Your task to perform on an android device: turn off picture-in-picture Image 0: 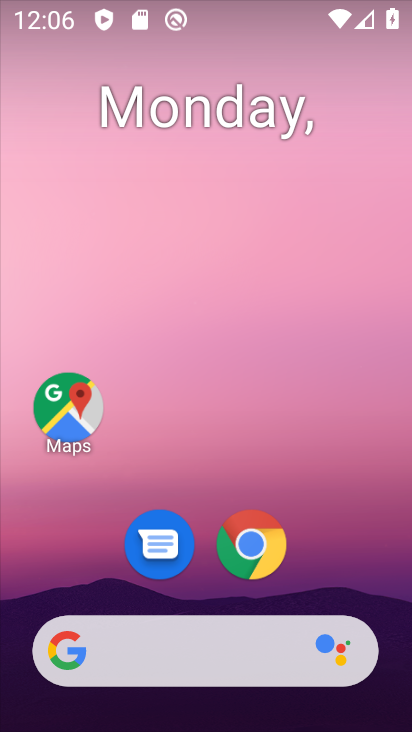
Step 0: drag from (295, 613) to (287, 50)
Your task to perform on an android device: turn off picture-in-picture Image 1: 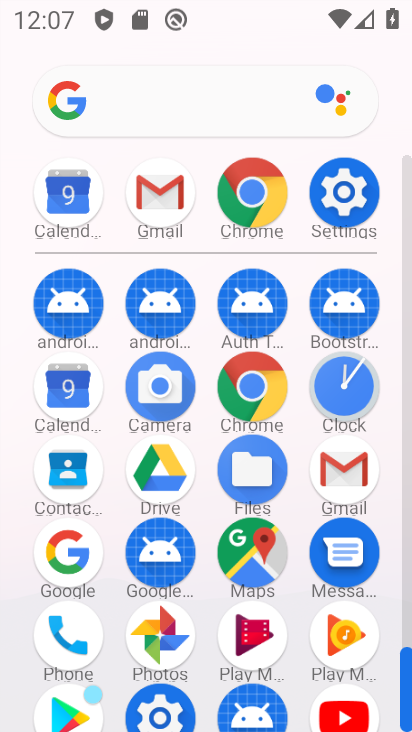
Step 1: click (340, 211)
Your task to perform on an android device: turn off picture-in-picture Image 2: 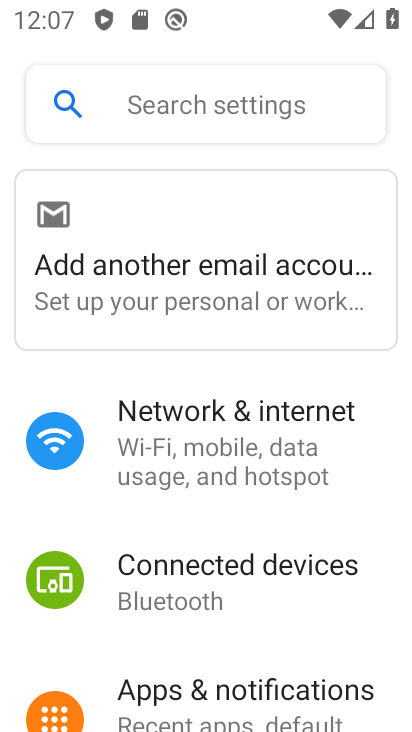
Step 2: drag from (209, 710) to (225, 260)
Your task to perform on an android device: turn off picture-in-picture Image 3: 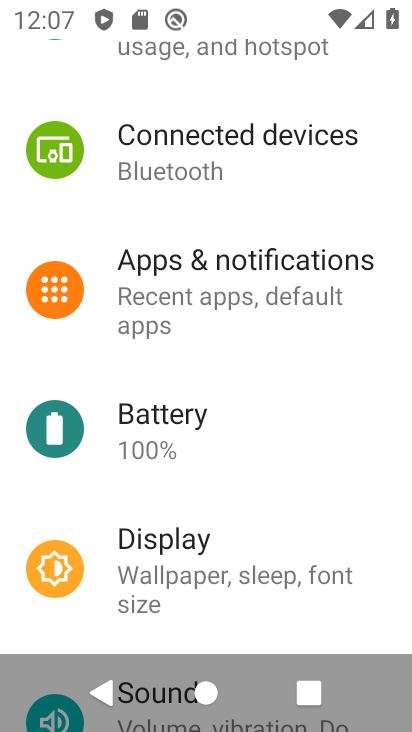
Step 3: click (271, 292)
Your task to perform on an android device: turn off picture-in-picture Image 4: 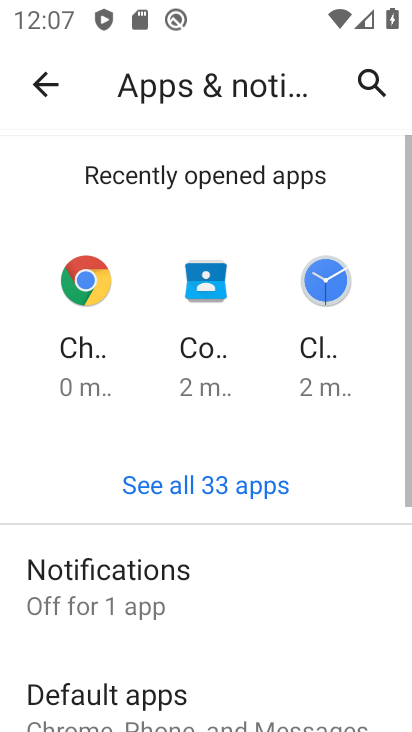
Step 4: drag from (264, 707) to (260, 52)
Your task to perform on an android device: turn off picture-in-picture Image 5: 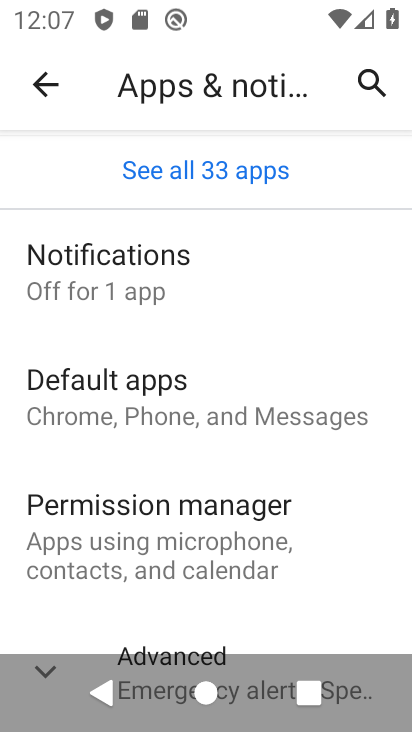
Step 5: click (212, 644)
Your task to perform on an android device: turn off picture-in-picture Image 6: 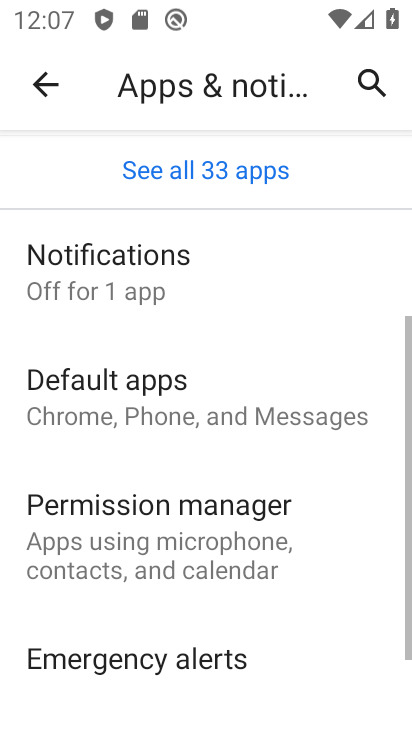
Step 6: drag from (239, 693) to (254, 86)
Your task to perform on an android device: turn off picture-in-picture Image 7: 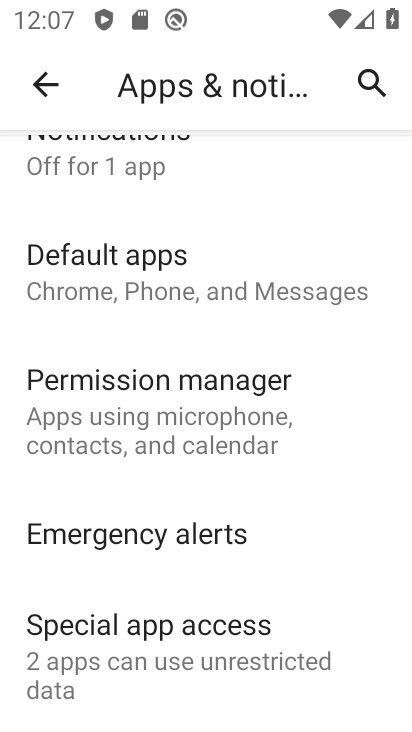
Step 7: click (255, 669)
Your task to perform on an android device: turn off picture-in-picture Image 8: 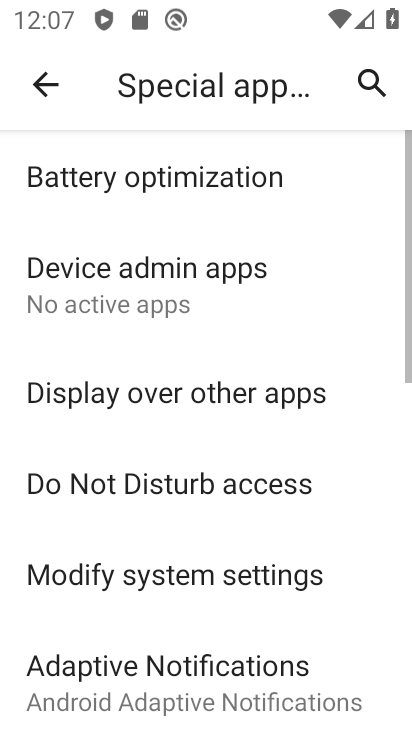
Step 8: drag from (254, 607) to (305, 75)
Your task to perform on an android device: turn off picture-in-picture Image 9: 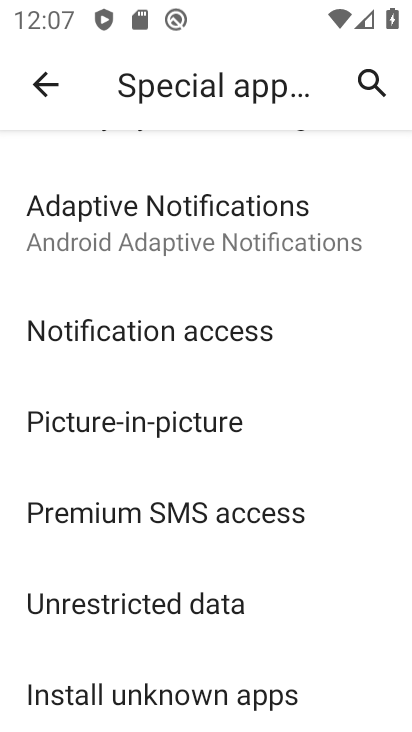
Step 9: click (215, 415)
Your task to perform on an android device: turn off picture-in-picture Image 10: 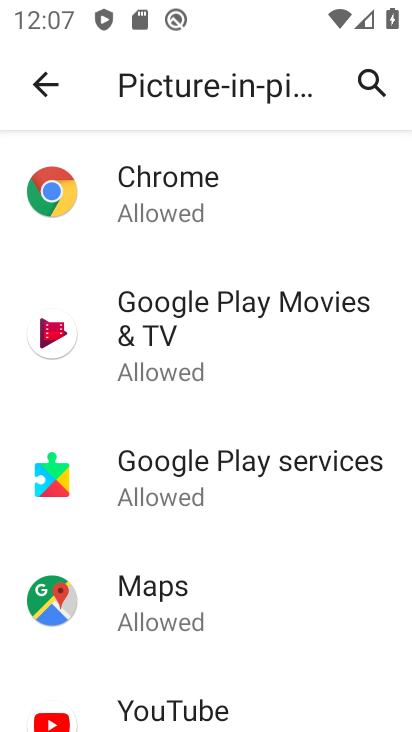
Step 10: click (177, 218)
Your task to perform on an android device: turn off picture-in-picture Image 11: 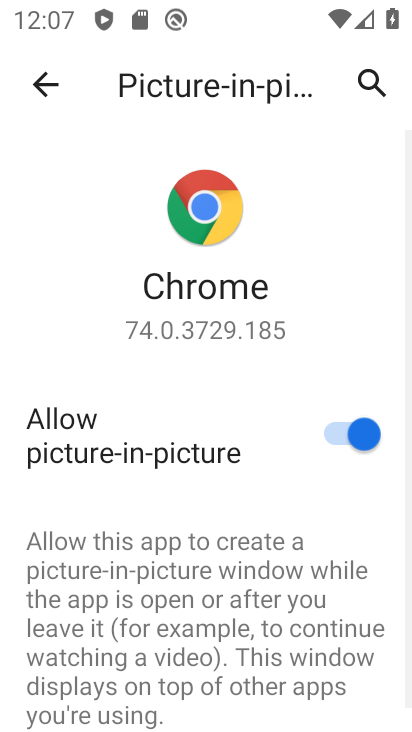
Step 11: click (336, 432)
Your task to perform on an android device: turn off picture-in-picture Image 12: 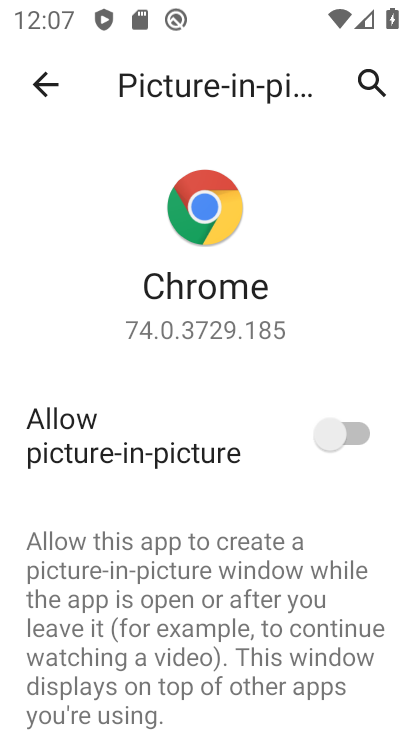
Step 12: press back button
Your task to perform on an android device: turn off picture-in-picture Image 13: 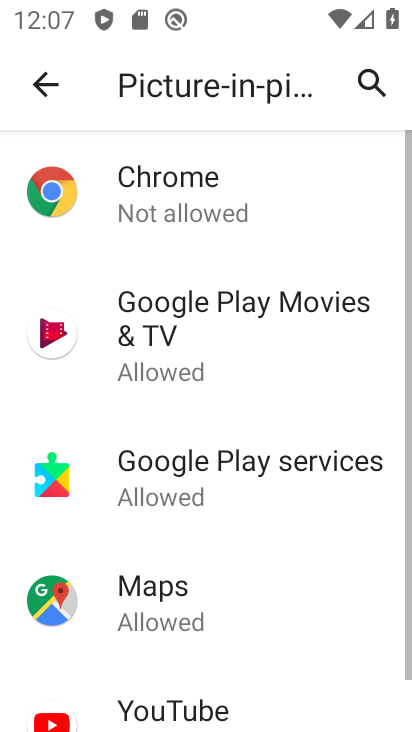
Step 13: click (174, 357)
Your task to perform on an android device: turn off picture-in-picture Image 14: 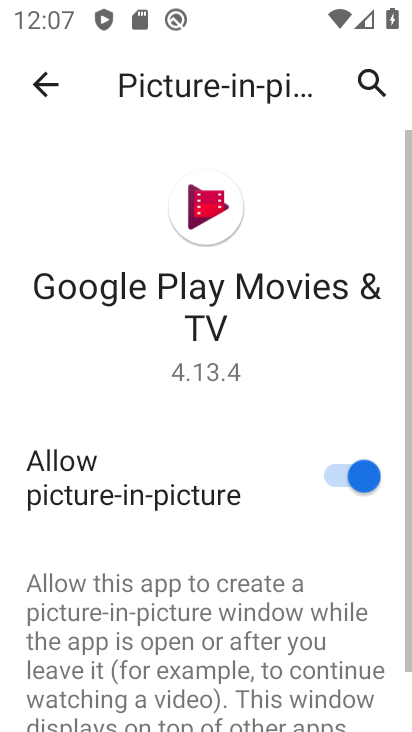
Step 14: click (345, 468)
Your task to perform on an android device: turn off picture-in-picture Image 15: 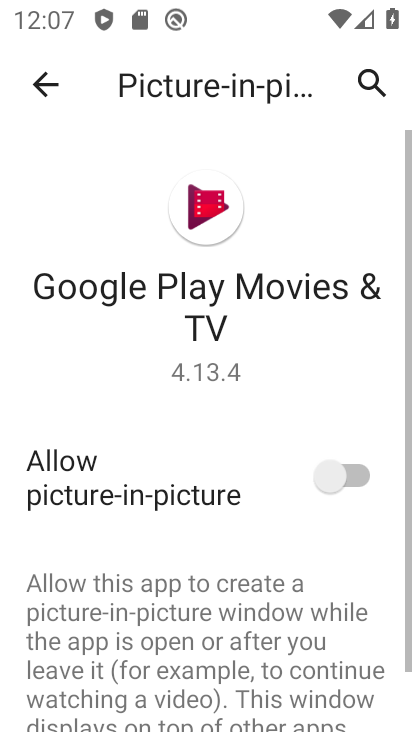
Step 15: press back button
Your task to perform on an android device: turn off picture-in-picture Image 16: 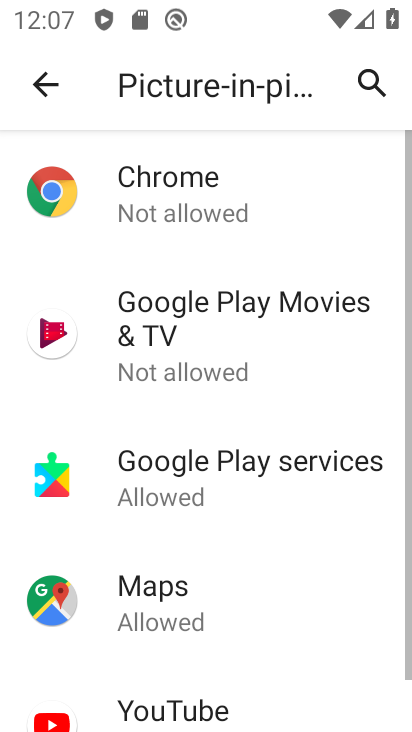
Step 16: click (221, 491)
Your task to perform on an android device: turn off picture-in-picture Image 17: 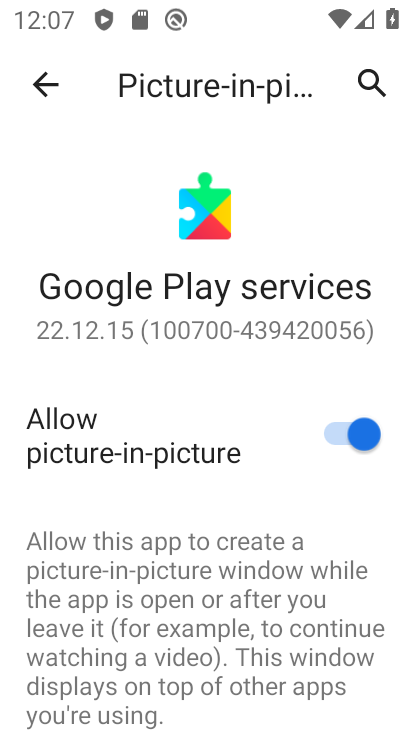
Step 17: click (332, 431)
Your task to perform on an android device: turn off picture-in-picture Image 18: 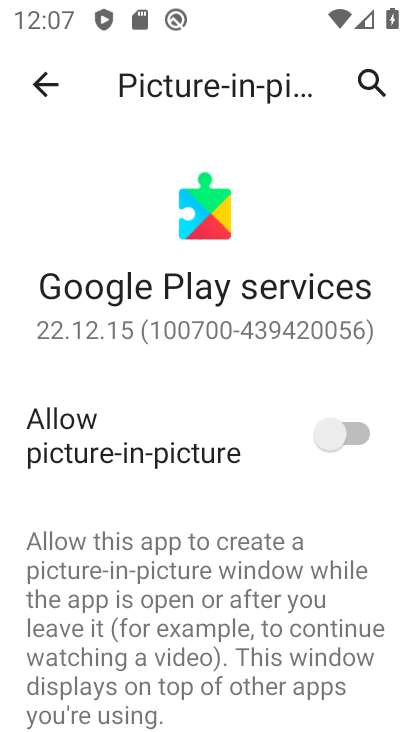
Step 18: press back button
Your task to perform on an android device: turn off picture-in-picture Image 19: 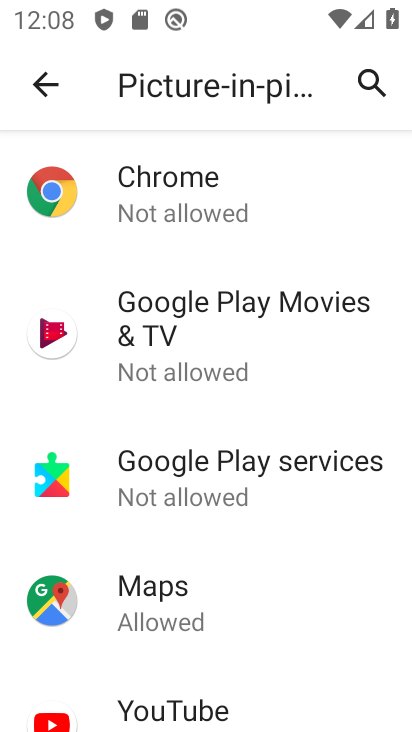
Step 19: click (216, 597)
Your task to perform on an android device: turn off picture-in-picture Image 20: 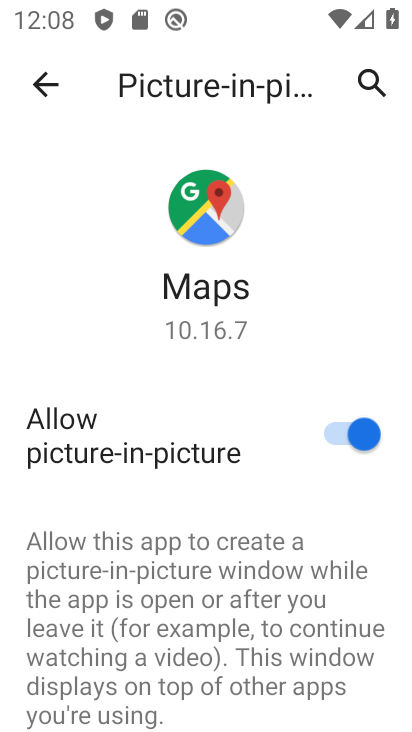
Step 20: click (339, 433)
Your task to perform on an android device: turn off picture-in-picture Image 21: 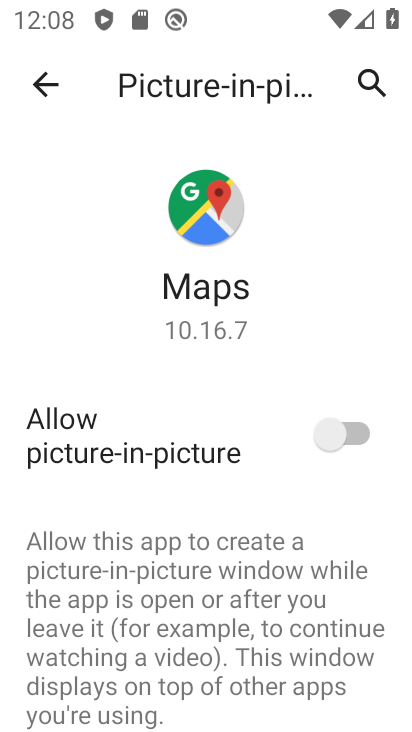
Step 21: press back button
Your task to perform on an android device: turn off picture-in-picture Image 22: 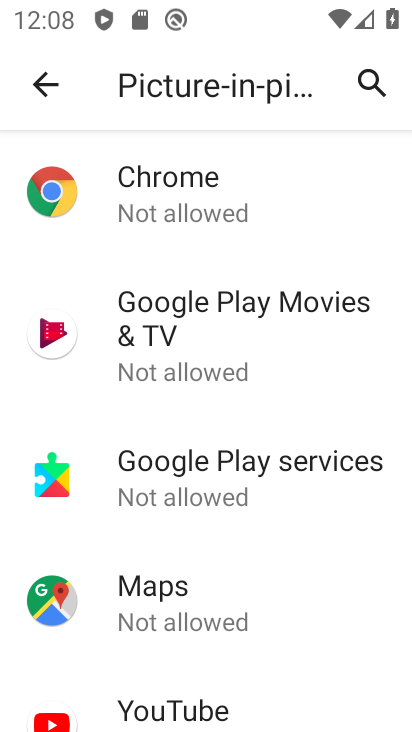
Step 22: click (256, 731)
Your task to perform on an android device: turn off picture-in-picture Image 23: 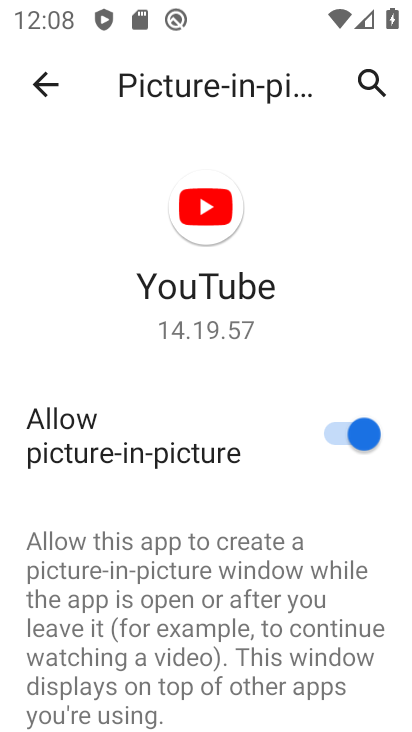
Step 23: click (344, 435)
Your task to perform on an android device: turn off picture-in-picture Image 24: 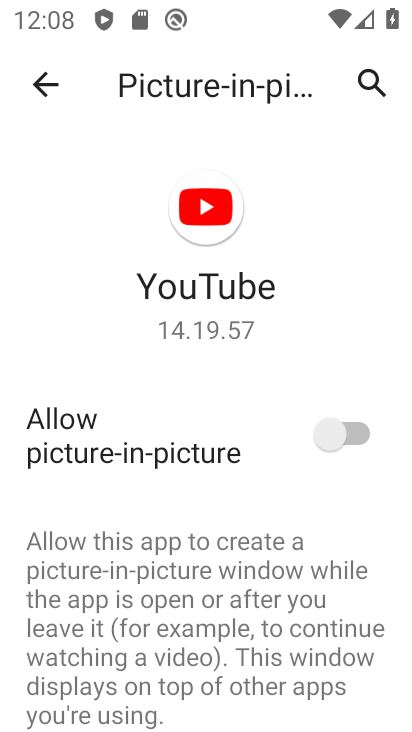
Step 24: task complete